Your task to perform on an android device: delete location history Image 0: 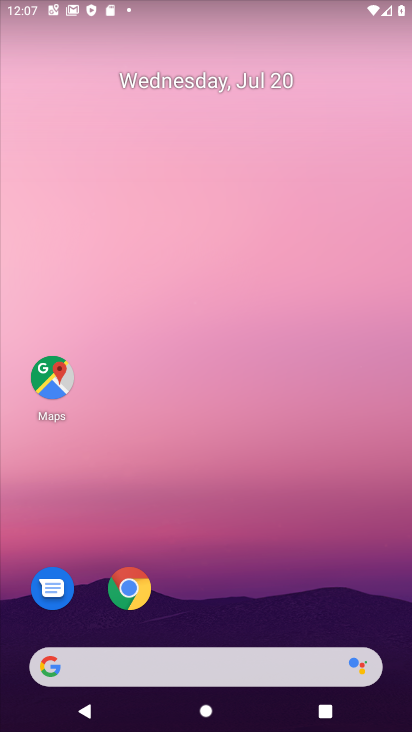
Step 0: drag from (400, 703) to (293, 146)
Your task to perform on an android device: delete location history Image 1: 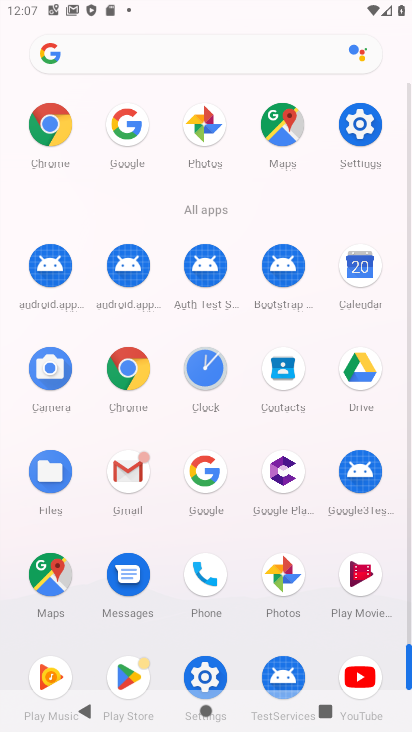
Step 1: click (367, 126)
Your task to perform on an android device: delete location history Image 2: 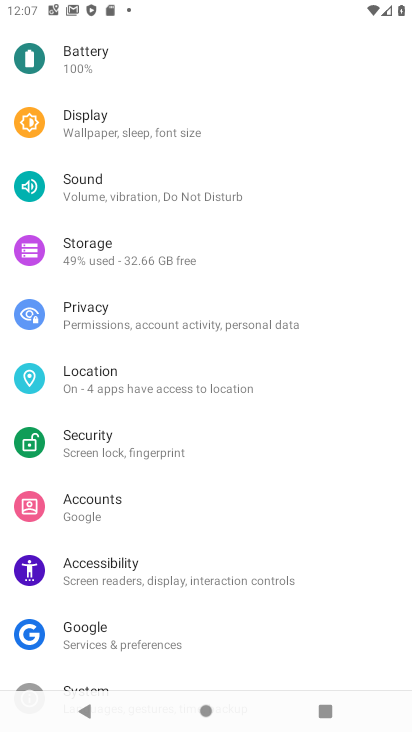
Step 2: press back button
Your task to perform on an android device: delete location history Image 3: 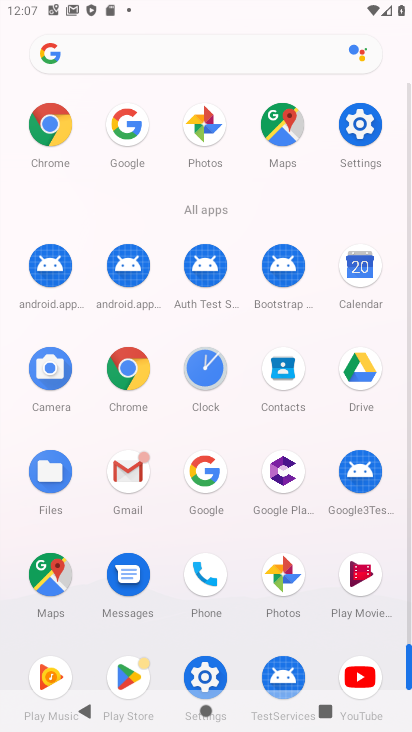
Step 3: click (49, 567)
Your task to perform on an android device: delete location history Image 4: 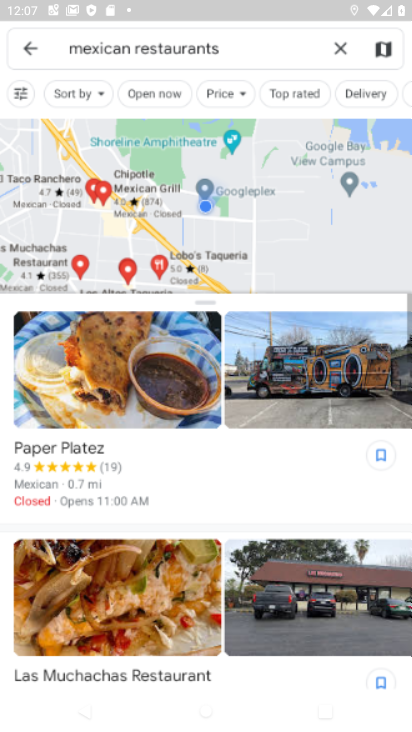
Step 4: click (30, 44)
Your task to perform on an android device: delete location history Image 5: 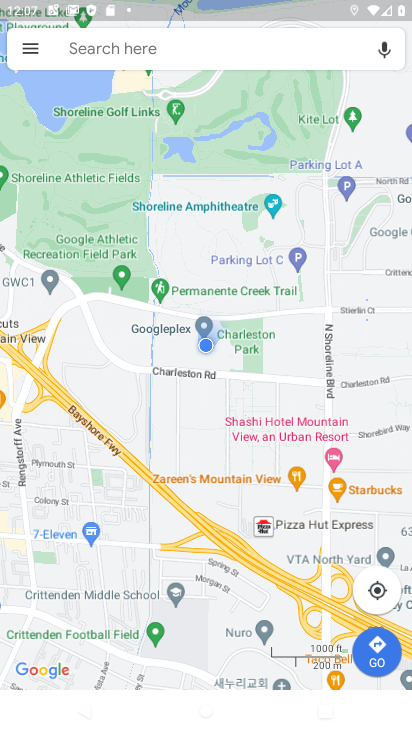
Step 5: click (30, 56)
Your task to perform on an android device: delete location history Image 6: 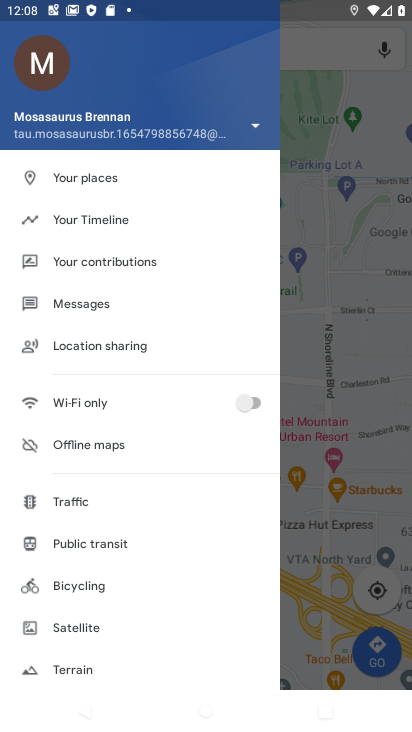
Step 6: click (86, 215)
Your task to perform on an android device: delete location history Image 7: 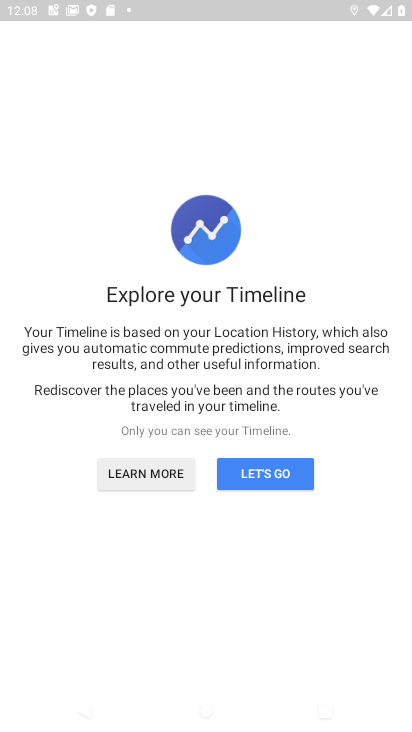
Step 7: click (247, 475)
Your task to perform on an android device: delete location history Image 8: 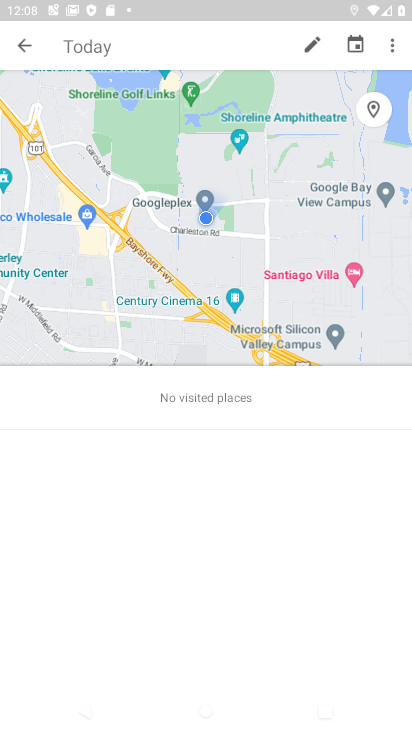
Step 8: click (389, 45)
Your task to perform on an android device: delete location history Image 9: 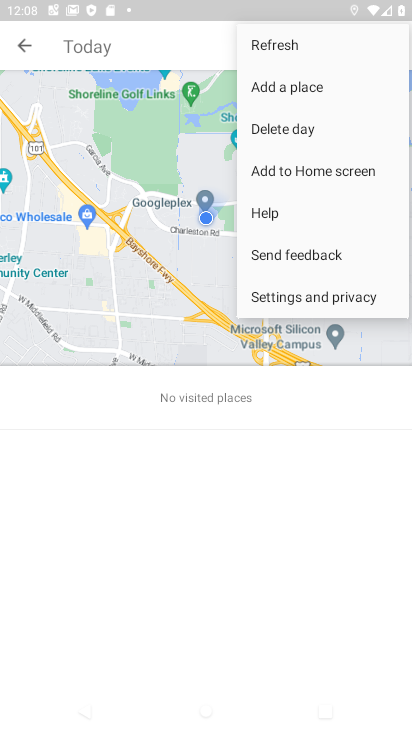
Step 9: click (304, 292)
Your task to perform on an android device: delete location history Image 10: 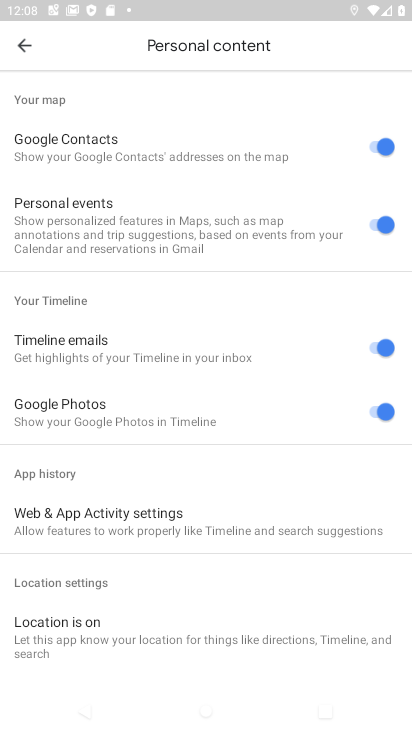
Step 10: drag from (172, 642) to (159, 305)
Your task to perform on an android device: delete location history Image 11: 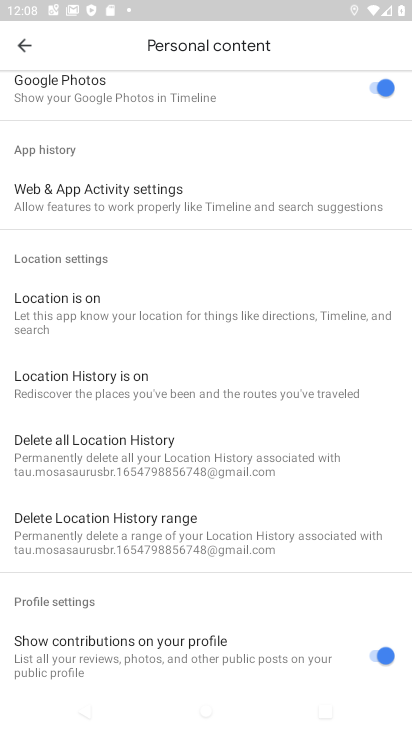
Step 11: click (114, 440)
Your task to perform on an android device: delete location history Image 12: 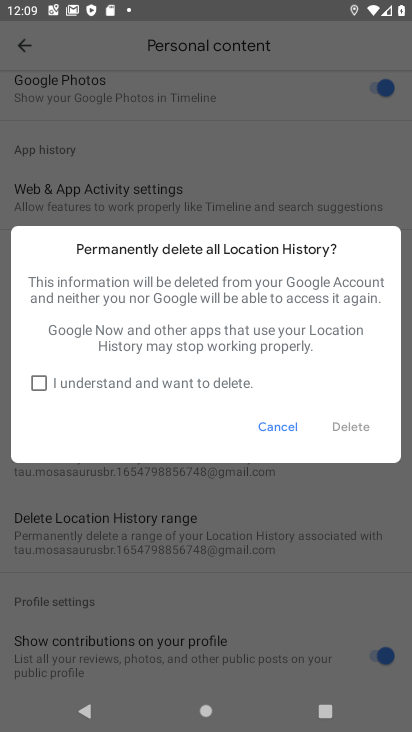
Step 12: click (40, 377)
Your task to perform on an android device: delete location history Image 13: 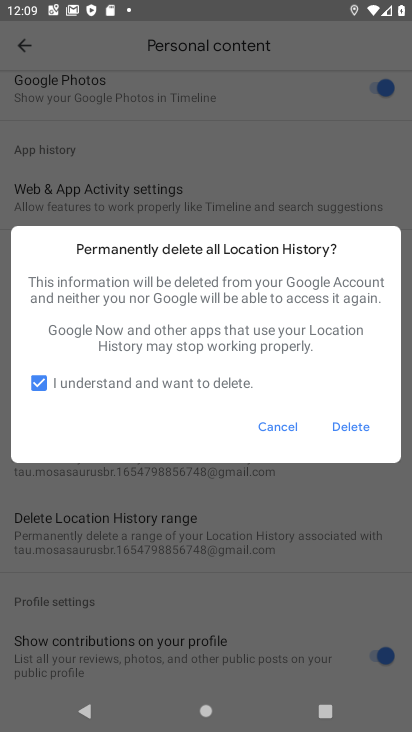
Step 13: click (349, 427)
Your task to perform on an android device: delete location history Image 14: 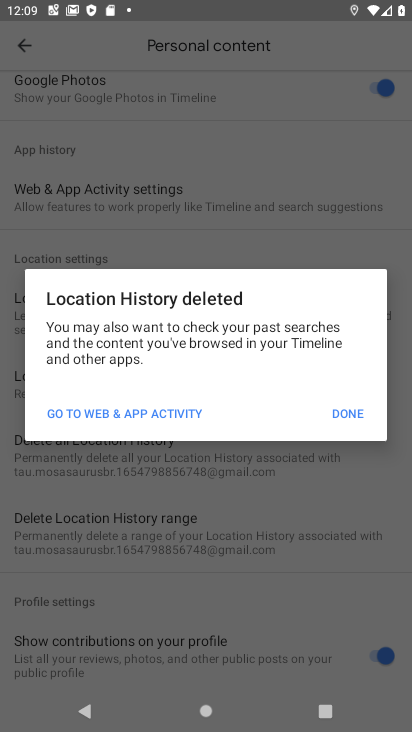
Step 14: click (338, 405)
Your task to perform on an android device: delete location history Image 15: 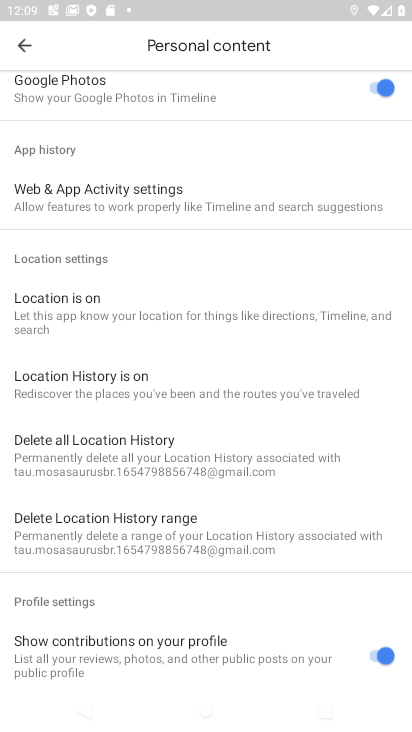
Step 15: task complete